Your task to perform on an android device: toggle data saver in the chrome app Image 0: 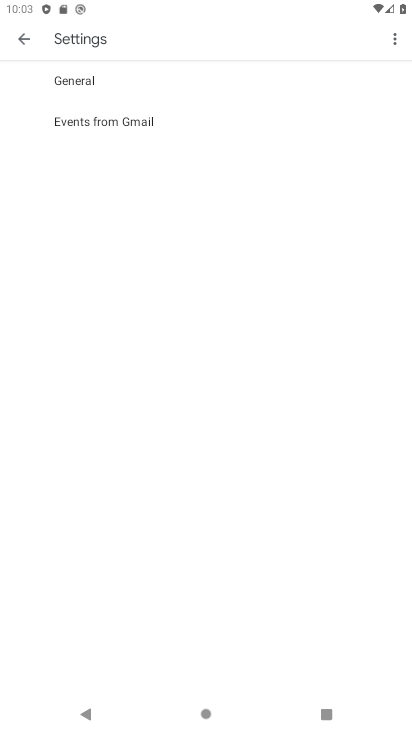
Step 0: click (25, 30)
Your task to perform on an android device: toggle data saver in the chrome app Image 1: 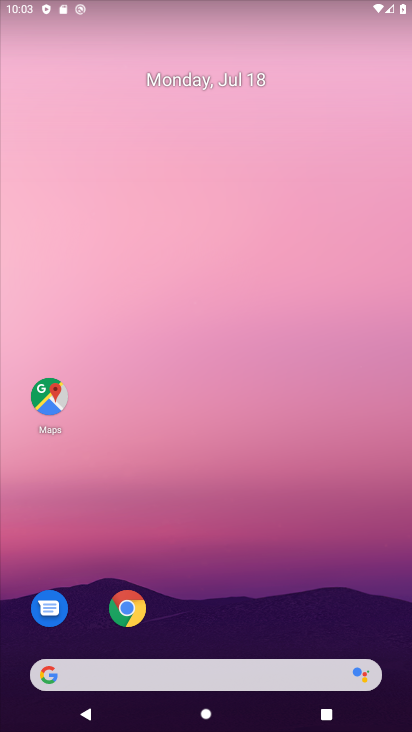
Step 1: drag from (220, 316) to (203, 13)
Your task to perform on an android device: toggle data saver in the chrome app Image 2: 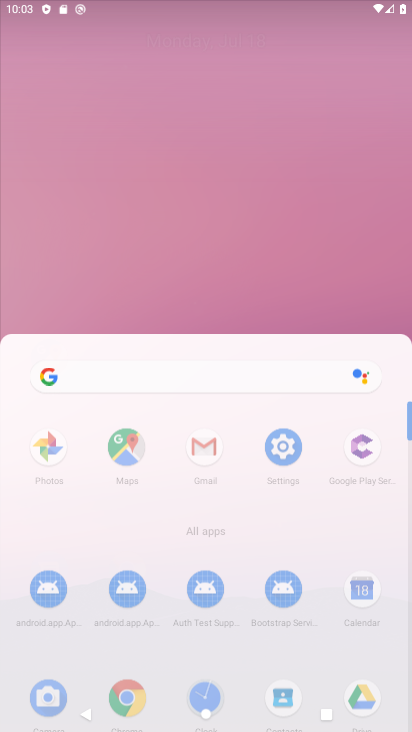
Step 2: drag from (204, 504) to (188, 123)
Your task to perform on an android device: toggle data saver in the chrome app Image 3: 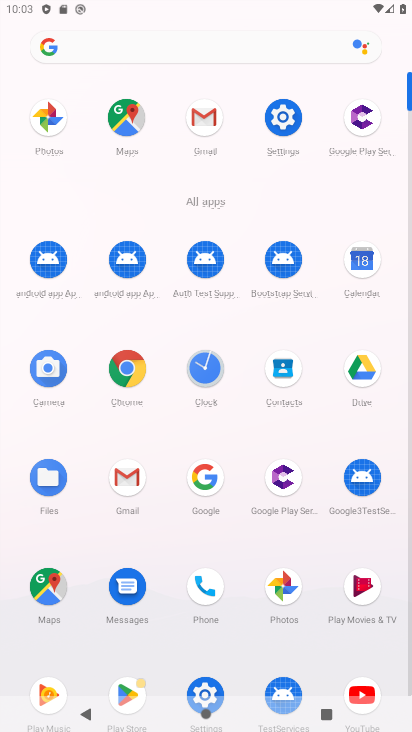
Step 3: click (132, 351)
Your task to perform on an android device: toggle data saver in the chrome app Image 4: 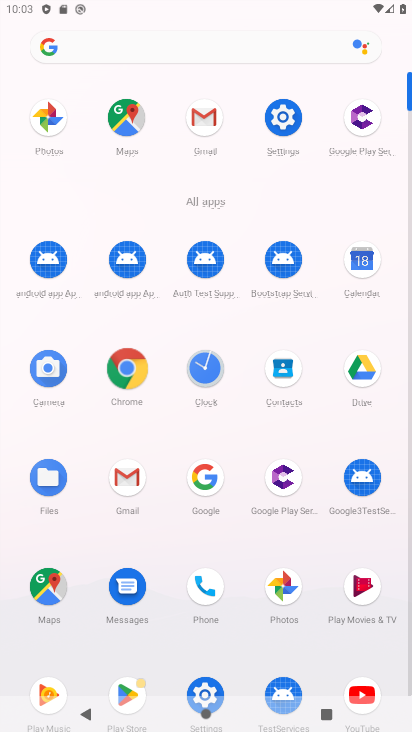
Step 4: click (129, 362)
Your task to perform on an android device: toggle data saver in the chrome app Image 5: 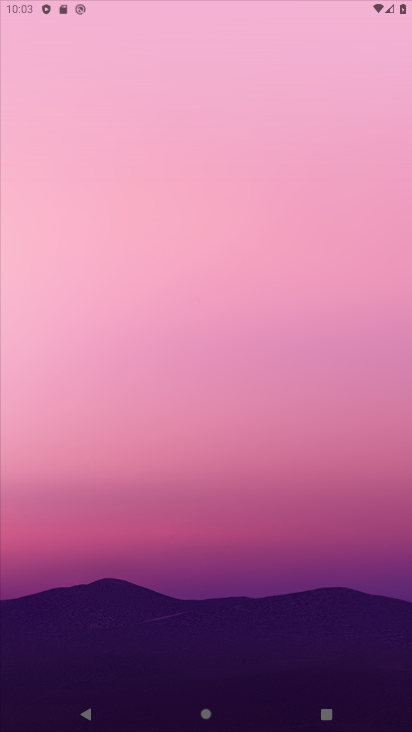
Step 5: click (129, 362)
Your task to perform on an android device: toggle data saver in the chrome app Image 6: 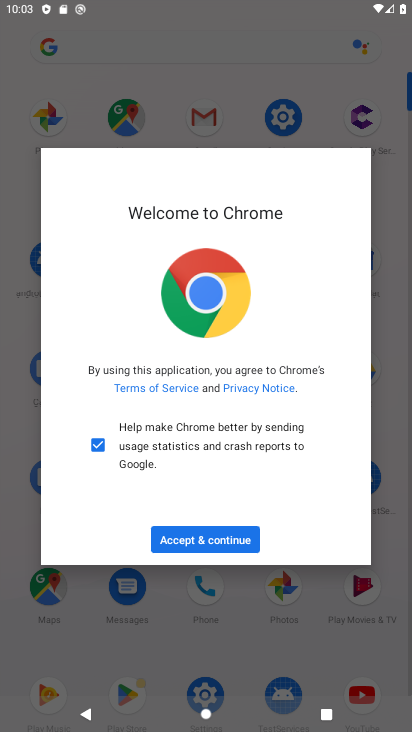
Step 6: click (216, 532)
Your task to perform on an android device: toggle data saver in the chrome app Image 7: 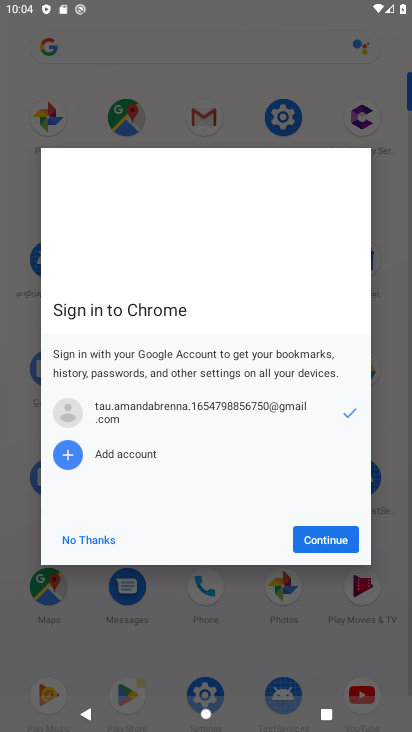
Step 7: click (315, 535)
Your task to perform on an android device: toggle data saver in the chrome app Image 8: 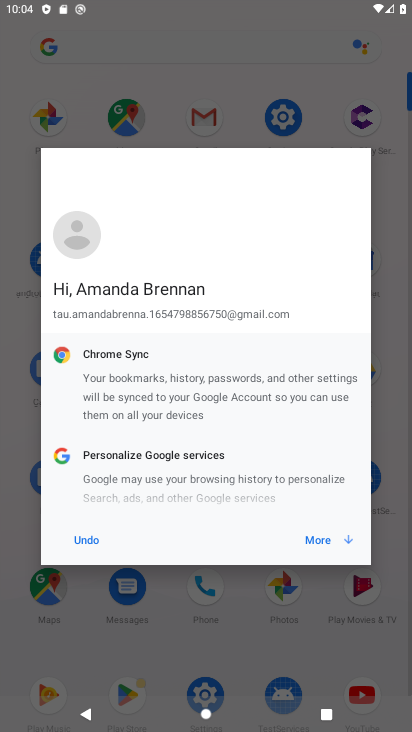
Step 8: click (322, 550)
Your task to perform on an android device: toggle data saver in the chrome app Image 9: 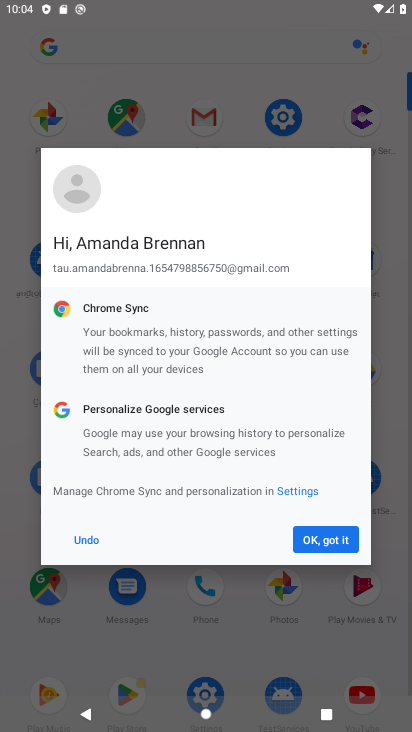
Step 9: click (323, 552)
Your task to perform on an android device: toggle data saver in the chrome app Image 10: 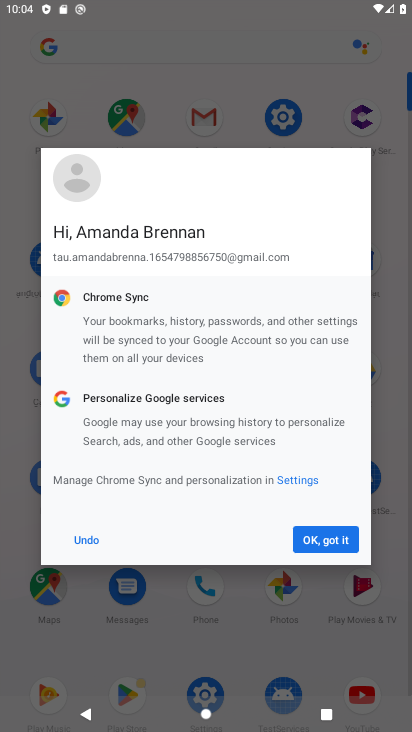
Step 10: click (323, 552)
Your task to perform on an android device: toggle data saver in the chrome app Image 11: 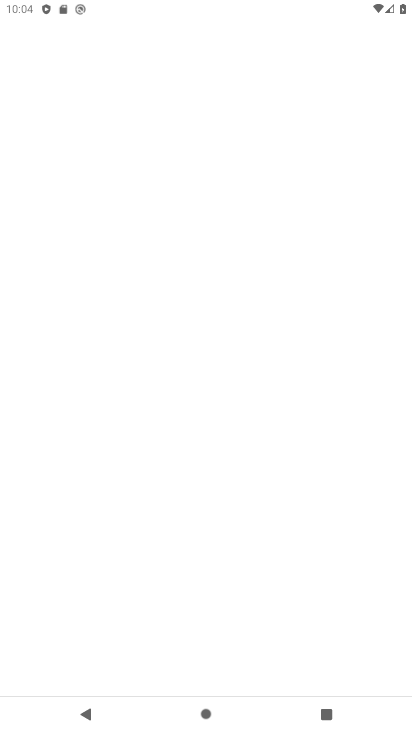
Step 11: click (330, 529)
Your task to perform on an android device: toggle data saver in the chrome app Image 12: 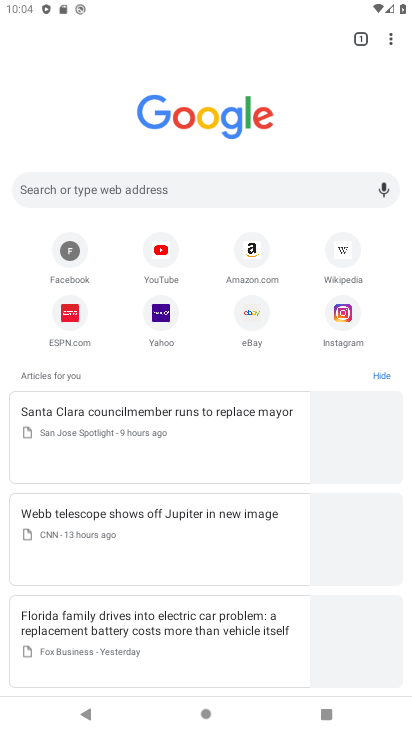
Step 12: drag from (390, 30) to (248, 330)
Your task to perform on an android device: toggle data saver in the chrome app Image 13: 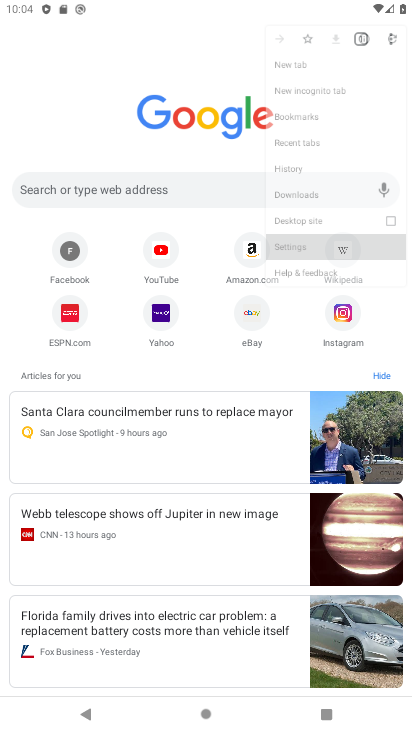
Step 13: click (248, 330)
Your task to perform on an android device: toggle data saver in the chrome app Image 14: 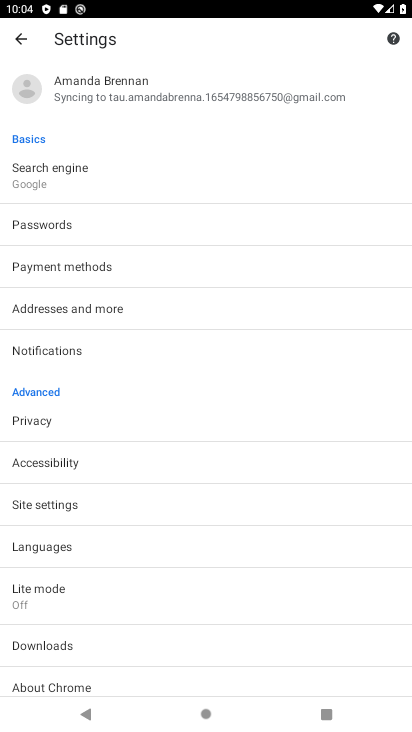
Step 14: click (35, 589)
Your task to perform on an android device: toggle data saver in the chrome app Image 15: 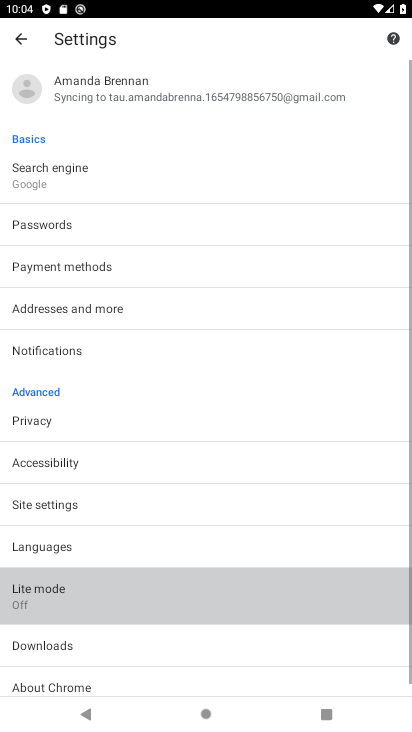
Step 15: click (35, 589)
Your task to perform on an android device: toggle data saver in the chrome app Image 16: 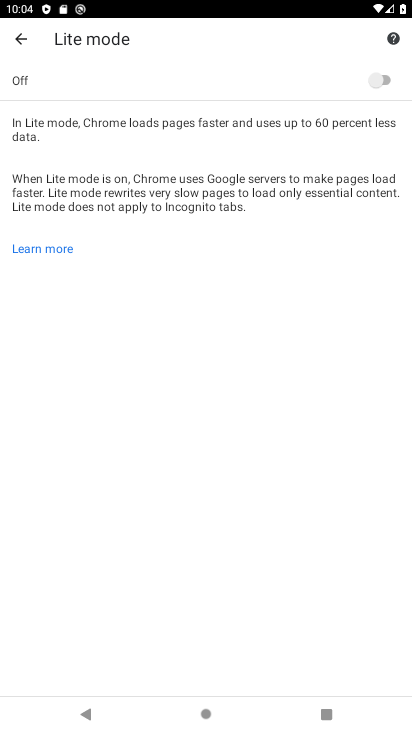
Step 16: click (374, 72)
Your task to perform on an android device: toggle data saver in the chrome app Image 17: 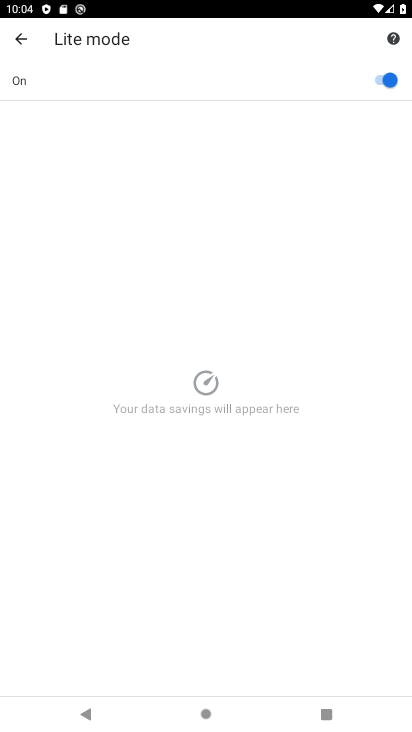
Step 17: task complete